Your task to perform on an android device: Open Yahoo.com Image 0: 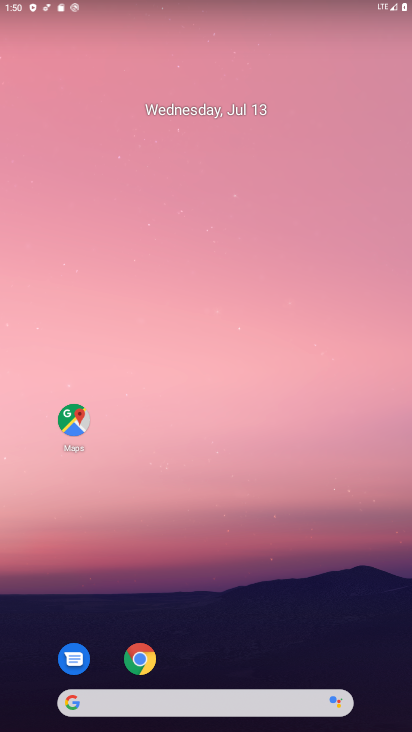
Step 0: click (140, 660)
Your task to perform on an android device: Open Yahoo.com Image 1: 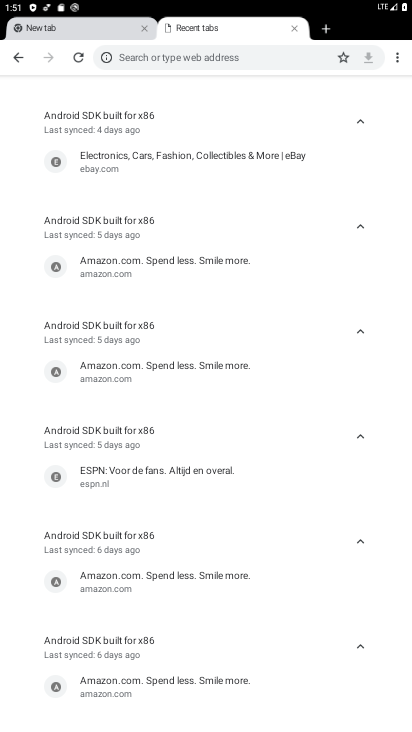
Step 1: click (168, 56)
Your task to perform on an android device: Open Yahoo.com Image 2: 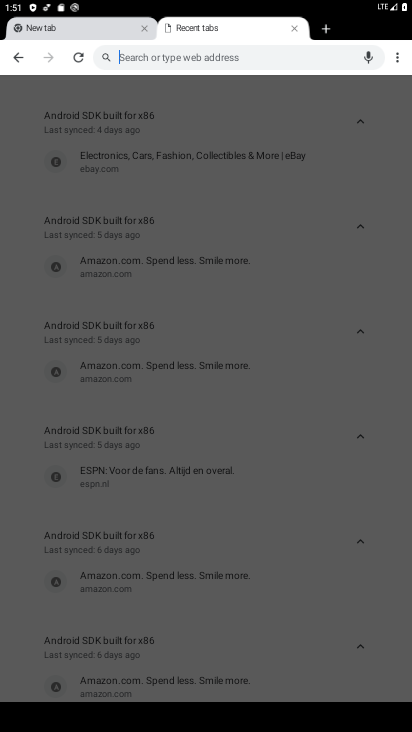
Step 2: type "yahoo.com"
Your task to perform on an android device: Open Yahoo.com Image 3: 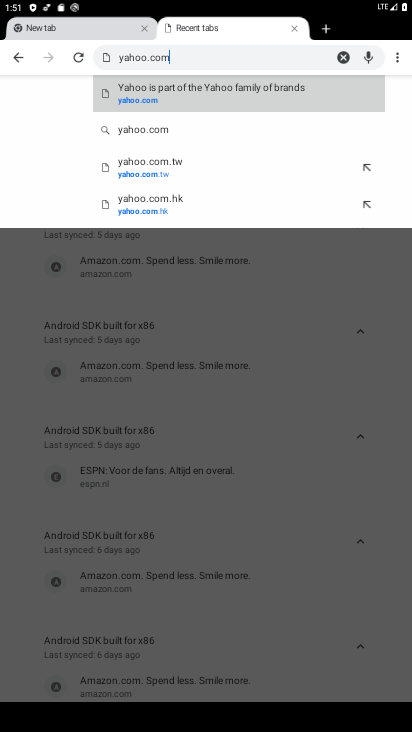
Step 3: click (154, 92)
Your task to perform on an android device: Open Yahoo.com Image 4: 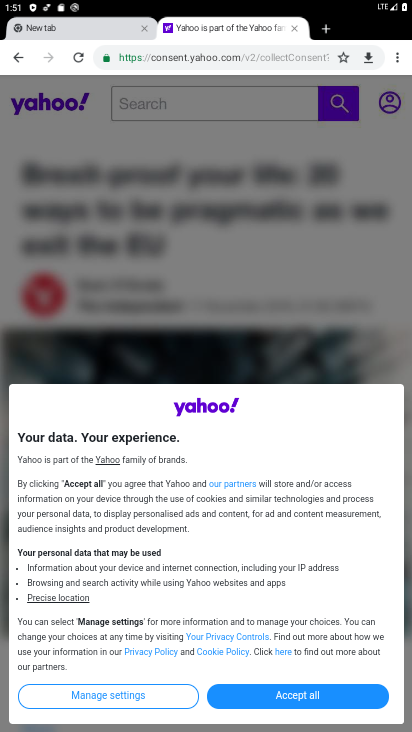
Step 4: click (295, 696)
Your task to perform on an android device: Open Yahoo.com Image 5: 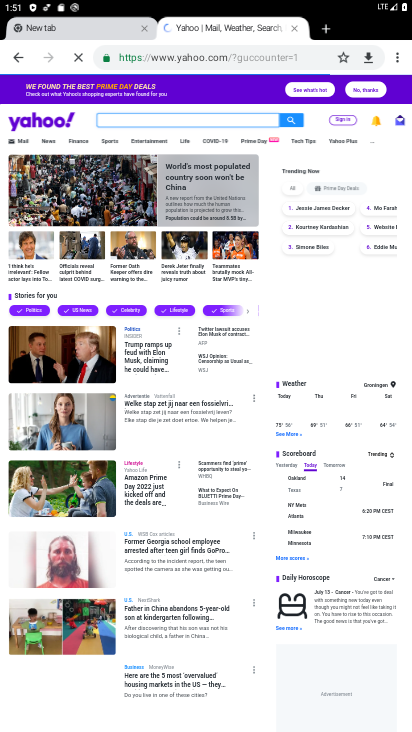
Step 5: task complete